Your task to perform on an android device: Open Google Chrome Image 0: 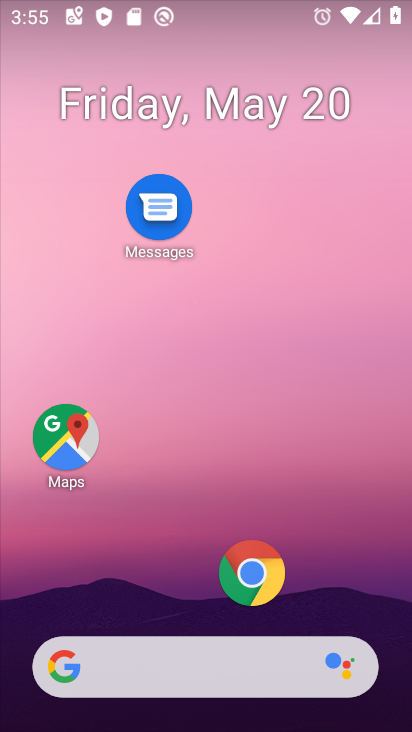
Step 0: click (250, 580)
Your task to perform on an android device: Open Google Chrome Image 1: 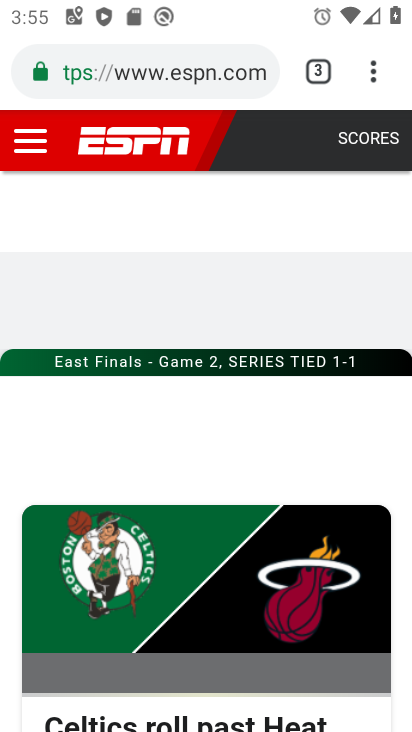
Step 1: task complete